Your task to perform on an android device: Open the calendar app, open the side menu, and click the "Day" option Image 0: 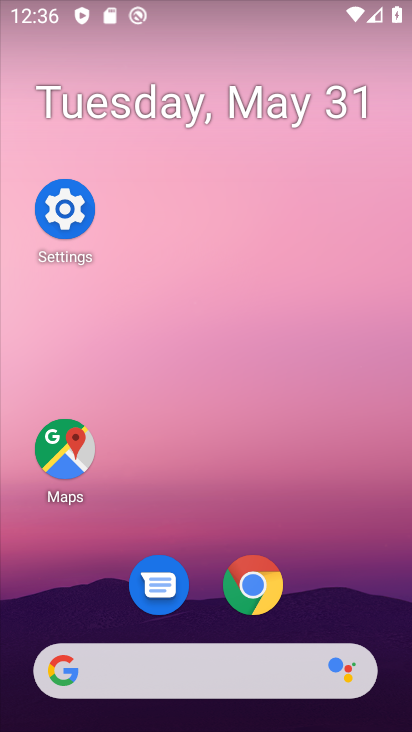
Step 0: drag from (357, 569) to (364, 180)
Your task to perform on an android device: Open the calendar app, open the side menu, and click the "Day" option Image 1: 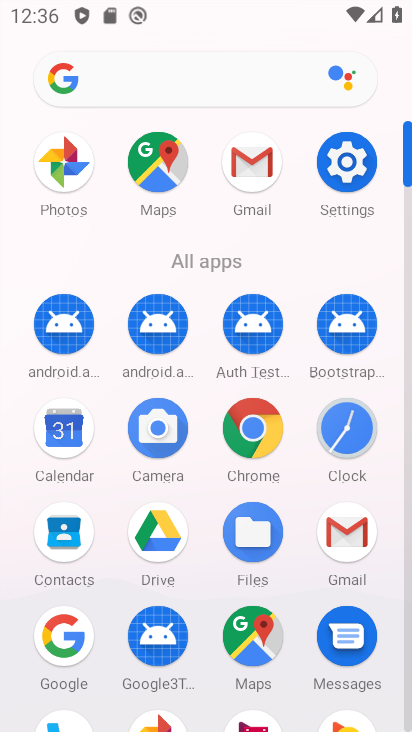
Step 1: drag from (59, 445) to (136, 242)
Your task to perform on an android device: Open the calendar app, open the side menu, and click the "Day" option Image 2: 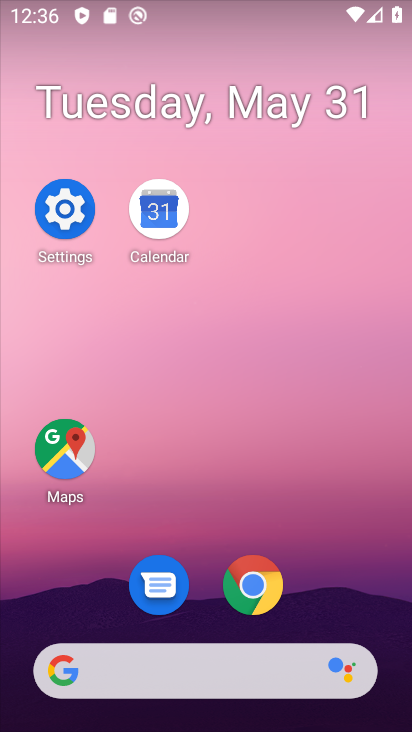
Step 2: click (171, 223)
Your task to perform on an android device: Open the calendar app, open the side menu, and click the "Day" option Image 3: 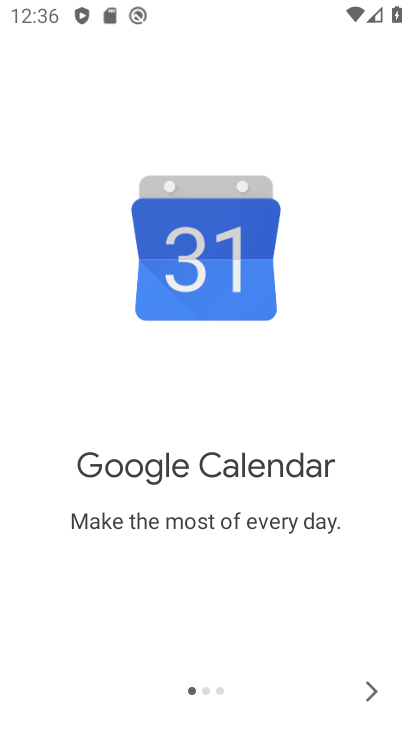
Step 3: click (367, 690)
Your task to perform on an android device: Open the calendar app, open the side menu, and click the "Day" option Image 4: 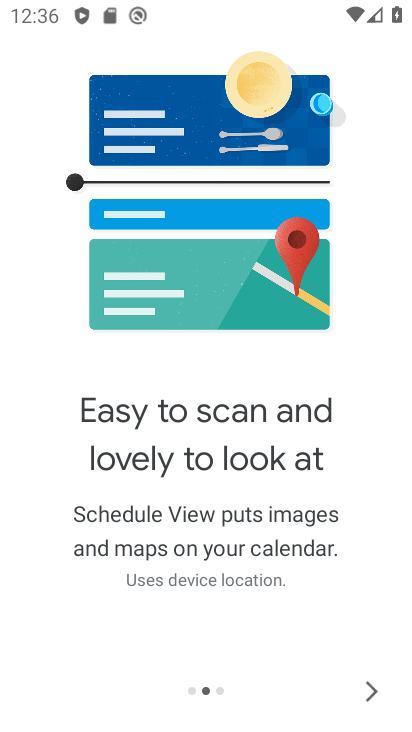
Step 4: click (367, 689)
Your task to perform on an android device: Open the calendar app, open the side menu, and click the "Day" option Image 5: 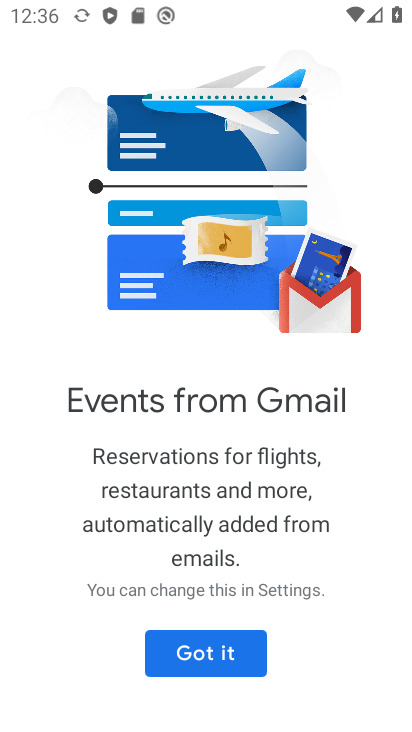
Step 5: click (247, 646)
Your task to perform on an android device: Open the calendar app, open the side menu, and click the "Day" option Image 6: 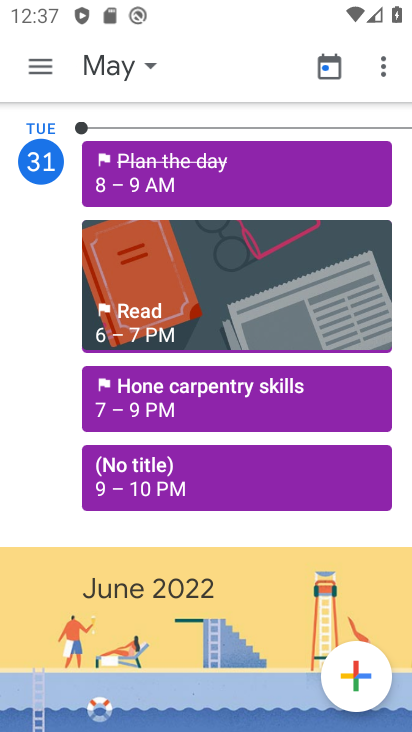
Step 6: click (45, 91)
Your task to perform on an android device: Open the calendar app, open the side menu, and click the "Day" option Image 7: 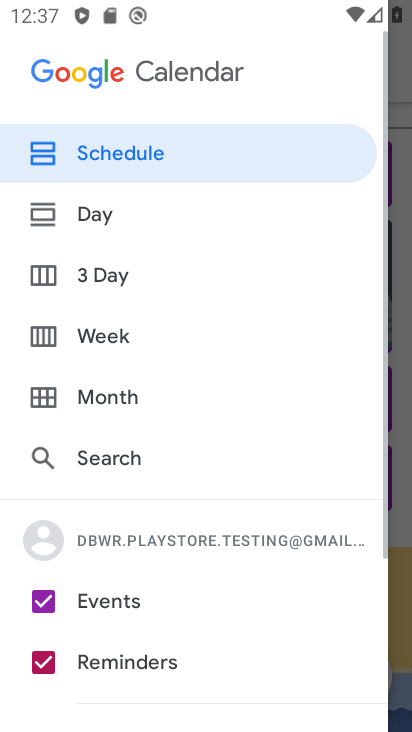
Step 7: click (93, 208)
Your task to perform on an android device: Open the calendar app, open the side menu, and click the "Day" option Image 8: 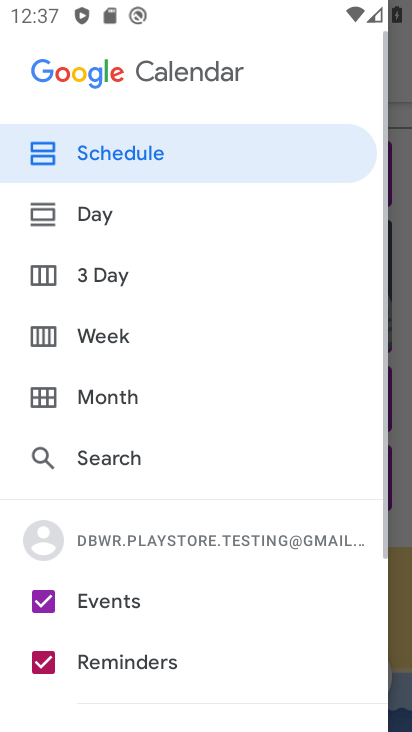
Step 8: click (97, 225)
Your task to perform on an android device: Open the calendar app, open the side menu, and click the "Day" option Image 9: 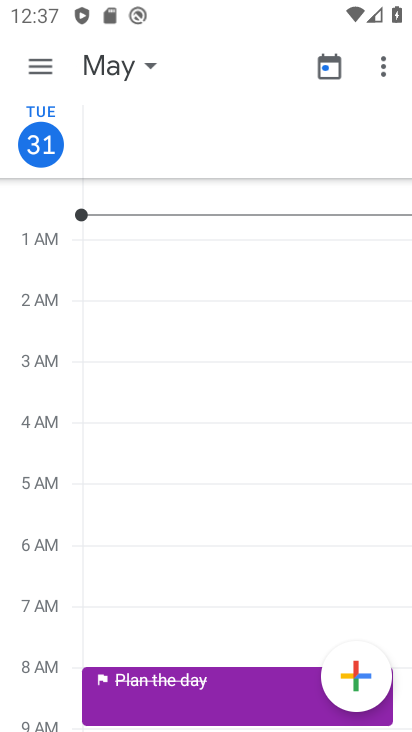
Step 9: click (31, 69)
Your task to perform on an android device: Open the calendar app, open the side menu, and click the "Day" option Image 10: 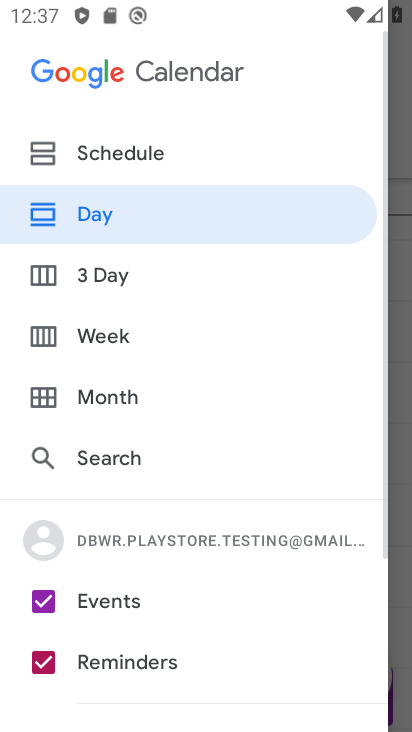
Step 10: click (142, 212)
Your task to perform on an android device: Open the calendar app, open the side menu, and click the "Day" option Image 11: 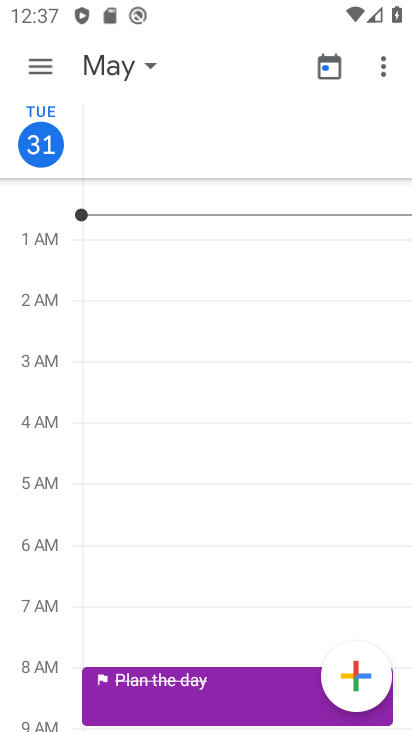
Step 11: task complete